Your task to perform on an android device: turn vacation reply on in the gmail app Image 0: 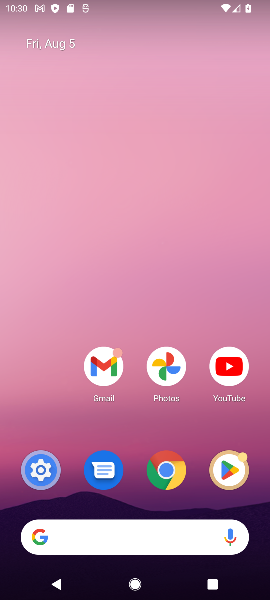
Step 0: drag from (113, 515) to (116, 124)
Your task to perform on an android device: turn vacation reply on in the gmail app Image 1: 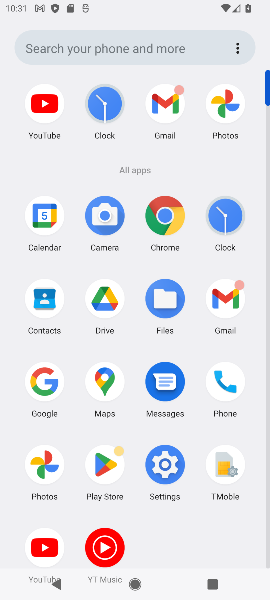
Step 1: click (170, 96)
Your task to perform on an android device: turn vacation reply on in the gmail app Image 2: 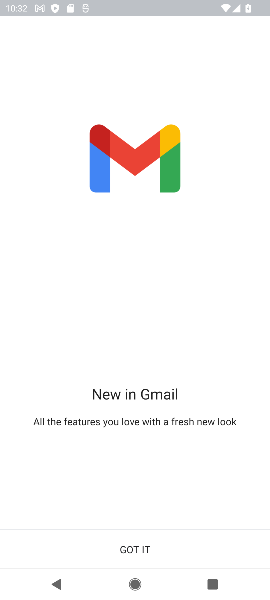
Step 2: click (128, 547)
Your task to perform on an android device: turn vacation reply on in the gmail app Image 3: 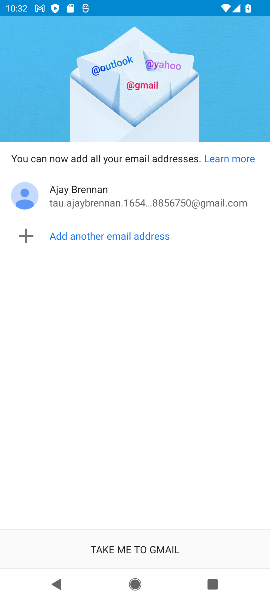
Step 3: click (118, 546)
Your task to perform on an android device: turn vacation reply on in the gmail app Image 4: 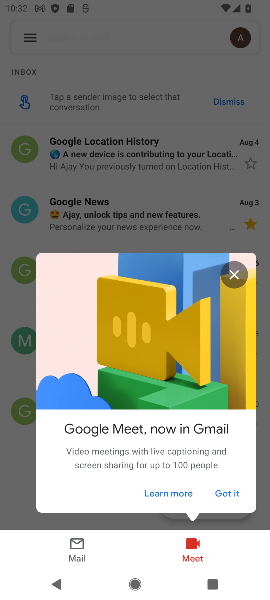
Step 4: click (238, 279)
Your task to perform on an android device: turn vacation reply on in the gmail app Image 5: 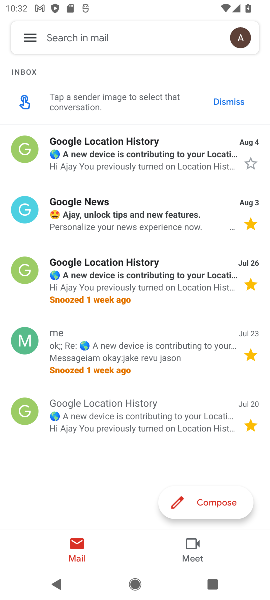
Step 5: click (24, 41)
Your task to perform on an android device: turn vacation reply on in the gmail app Image 6: 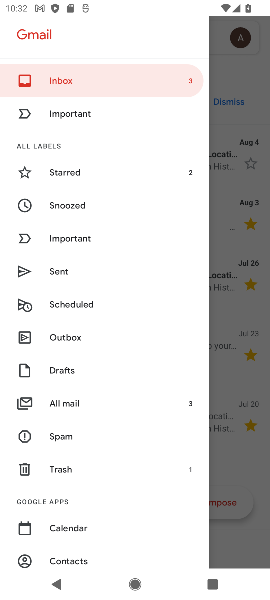
Step 6: drag from (61, 465) to (61, 150)
Your task to perform on an android device: turn vacation reply on in the gmail app Image 7: 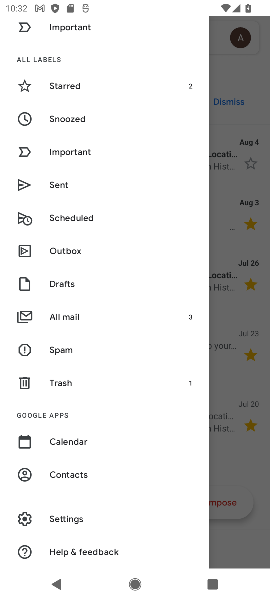
Step 7: click (63, 520)
Your task to perform on an android device: turn vacation reply on in the gmail app Image 8: 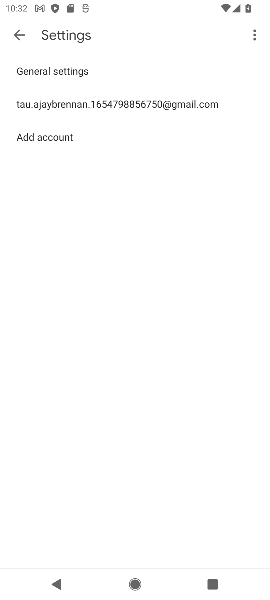
Step 8: click (70, 100)
Your task to perform on an android device: turn vacation reply on in the gmail app Image 9: 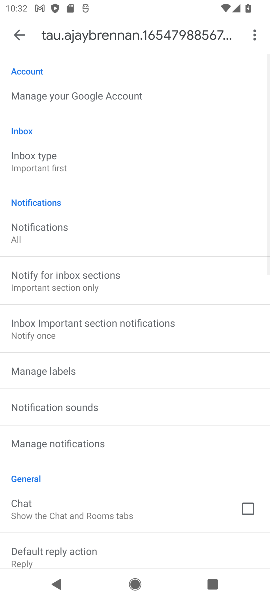
Step 9: drag from (52, 521) to (85, 226)
Your task to perform on an android device: turn vacation reply on in the gmail app Image 10: 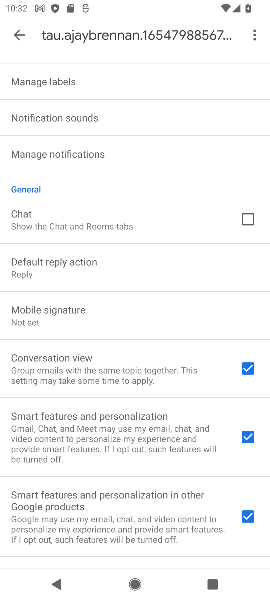
Step 10: drag from (91, 488) to (91, 247)
Your task to perform on an android device: turn vacation reply on in the gmail app Image 11: 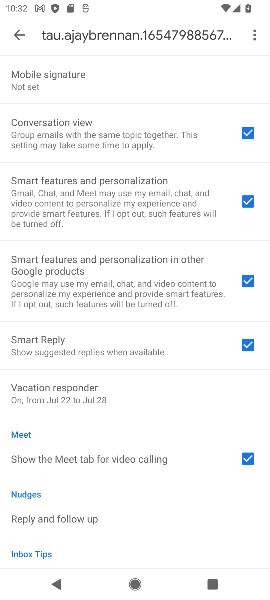
Step 11: click (74, 388)
Your task to perform on an android device: turn vacation reply on in the gmail app Image 12: 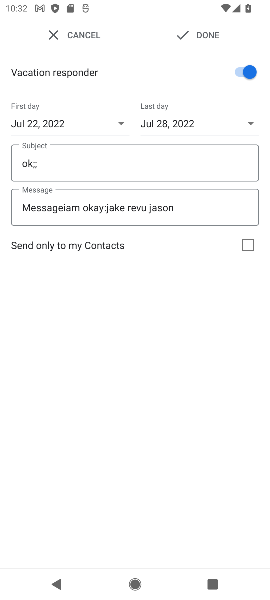
Step 12: task complete